Your task to perform on an android device: Open accessibility settings Image 0: 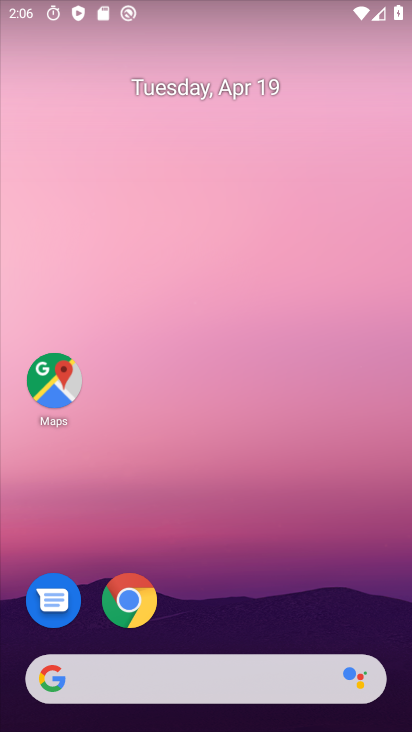
Step 0: drag from (294, 657) to (381, 144)
Your task to perform on an android device: Open accessibility settings Image 1: 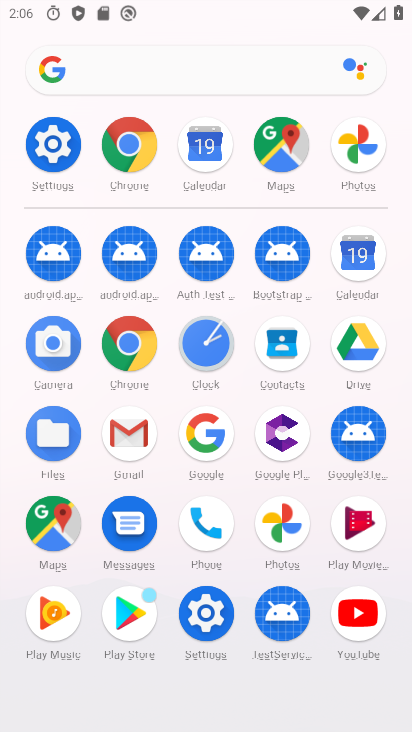
Step 1: click (198, 596)
Your task to perform on an android device: Open accessibility settings Image 2: 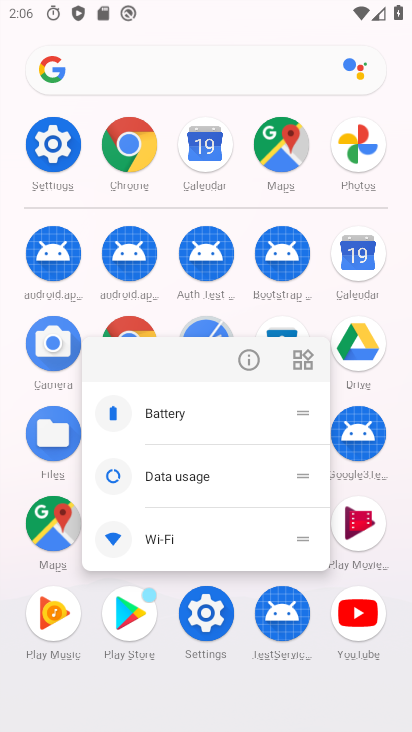
Step 2: click (197, 607)
Your task to perform on an android device: Open accessibility settings Image 3: 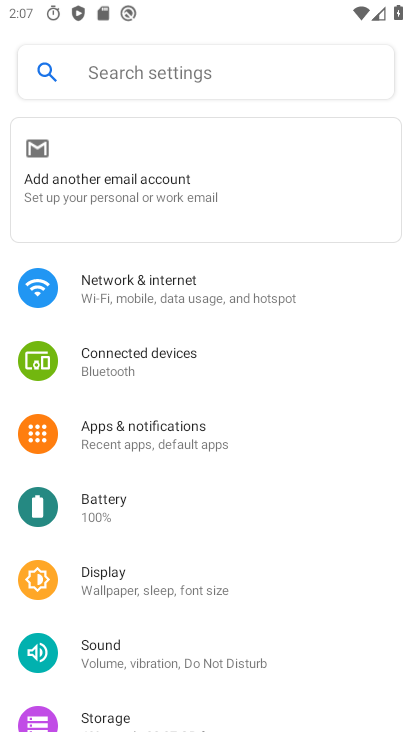
Step 3: click (148, 82)
Your task to perform on an android device: Open accessibility settings Image 4: 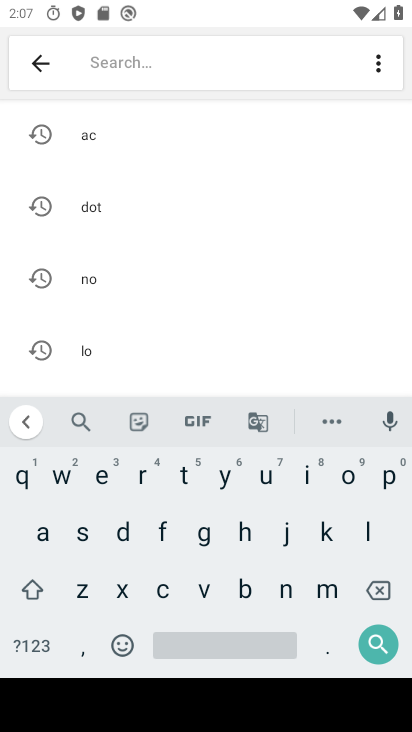
Step 4: click (83, 134)
Your task to perform on an android device: Open accessibility settings Image 5: 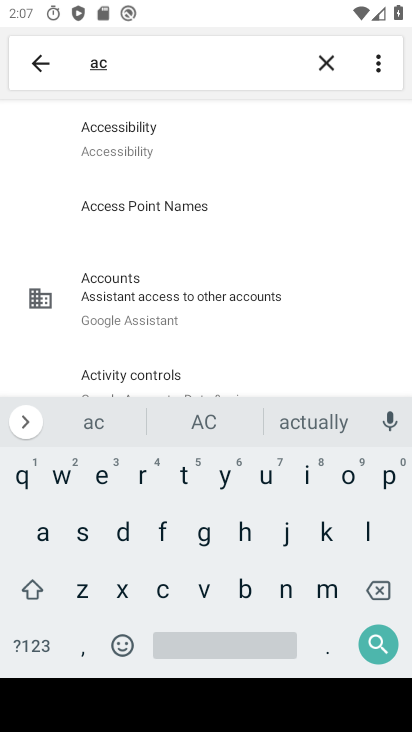
Step 5: click (150, 161)
Your task to perform on an android device: Open accessibility settings Image 6: 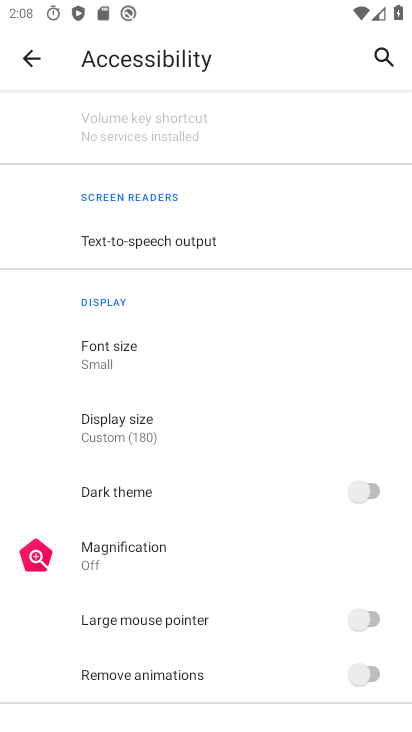
Step 6: task complete